Your task to perform on an android device: Play the latest video from the Huffington Post Image 0: 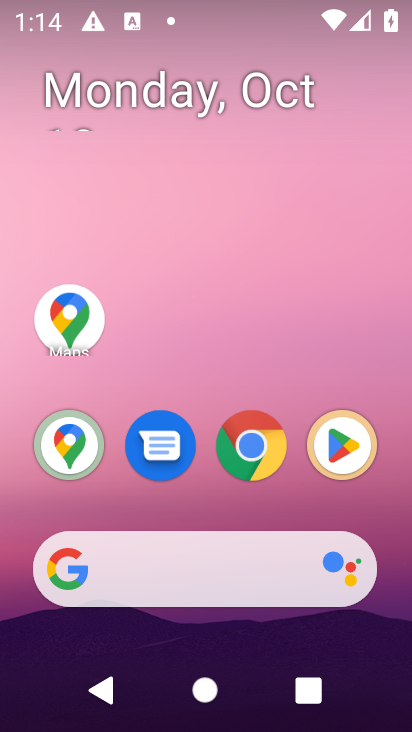
Step 0: click (78, 558)
Your task to perform on an android device: Play the latest video from the Huffington Post Image 1: 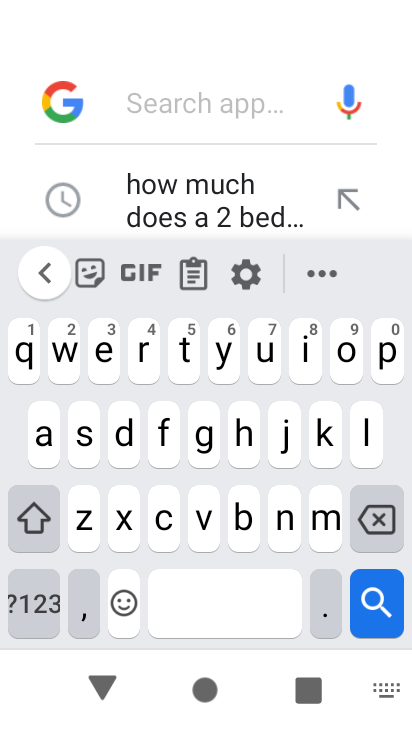
Step 1: click (200, 123)
Your task to perform on an android device: Play the latest video from the Huffington Post Image 2: 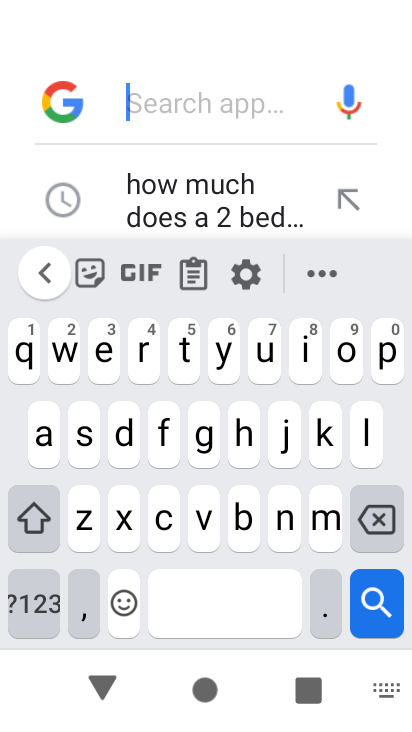
Step 2: type "latest video from the huffington post"
Your task to perform on an android device: Play the latest video from the Huffington Post Image 3: 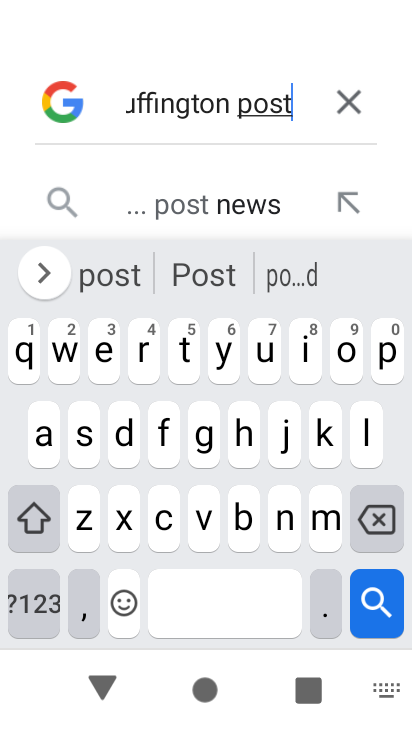
Step 3: click (241, 205)
Your task to perform on an android device: Play the latest video from the Huffington Post Image 4: 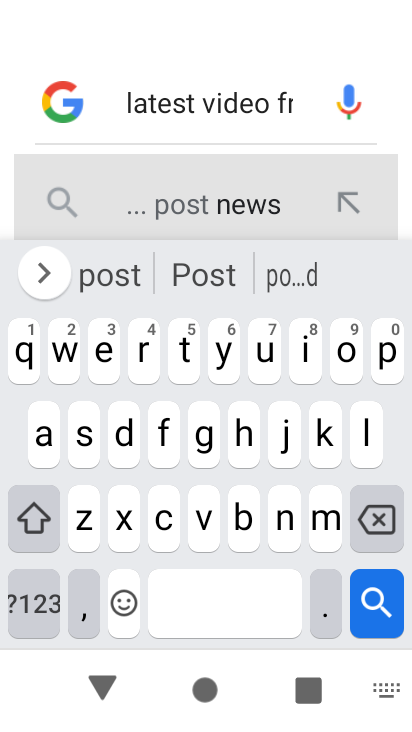
Step 4: task complete